Your task to perform on an android device: Open calendar and show me the third week of next month Image 0: 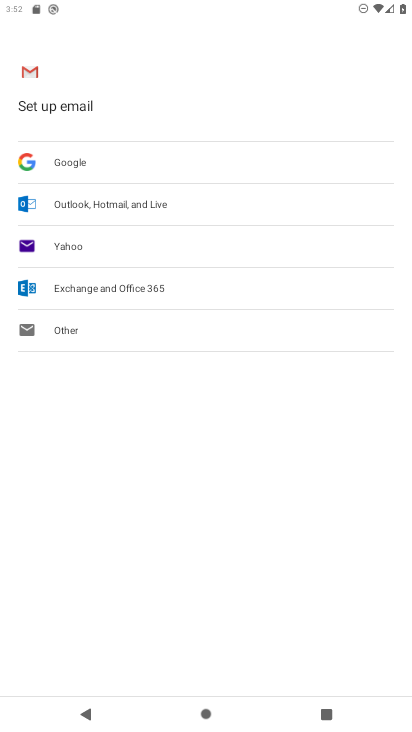
Step 0: press home button
Your task to perform on an android device: Open calendar and show me the third week of next month Image 1: 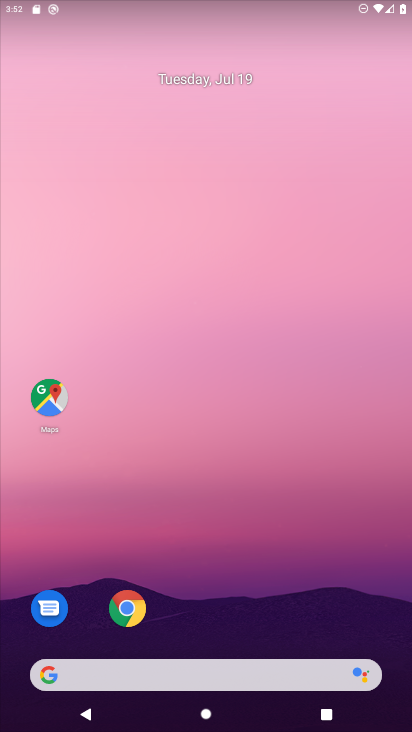
Step 1: drag from (333, 602) to (220, 58)
Your task to perform on an android device: Open calendar and show me the third week of next month Image 2: 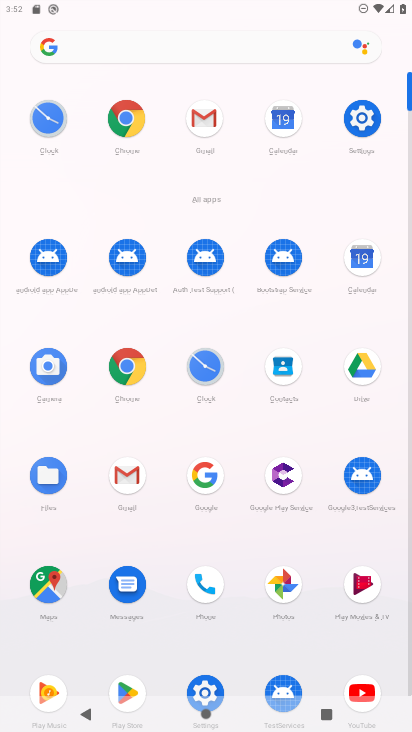
Step 2: click (280, 120)
Your task to perform on an android device: Open calendar and show me the third week of next month Image 3: 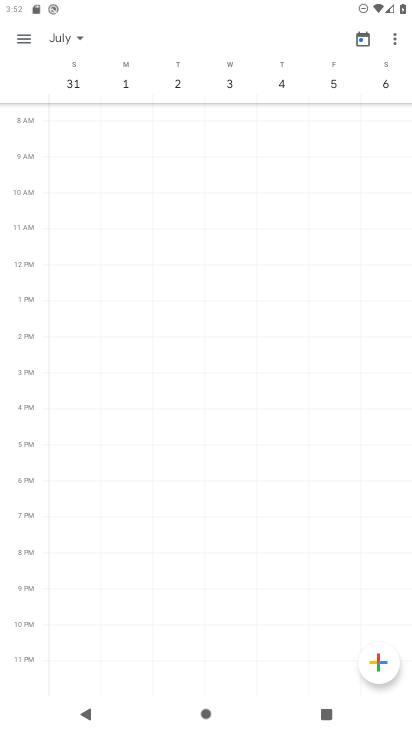
Step 3: click (76, 42)
Your task to perform on an android device: Open calendar and show me the third week of next month Image 4: 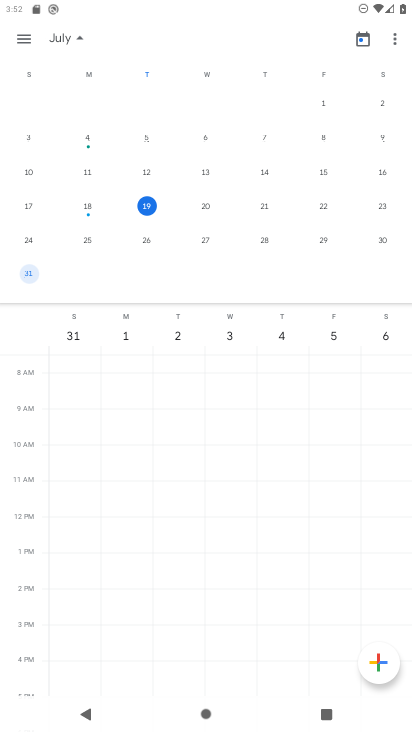
Step 4: drag from (386, 242) to (102, 176)
Your task to perform on an android device: Open calendar and show me the third week of next month Image 5: 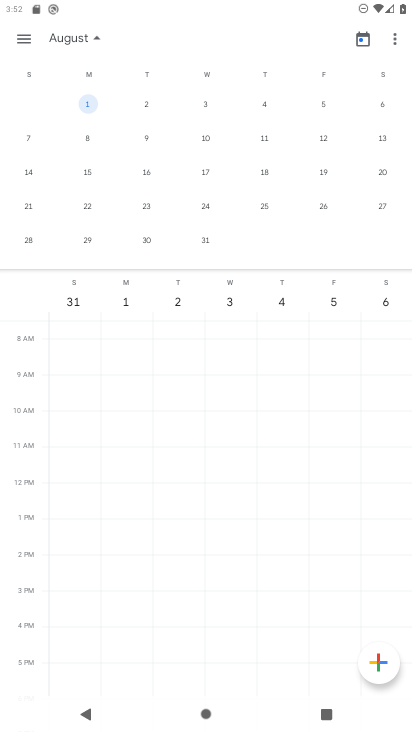
Step 5: click (148, 191)
Your task to perform on an android device: Open calendar and show me the third week of next month Image 6: 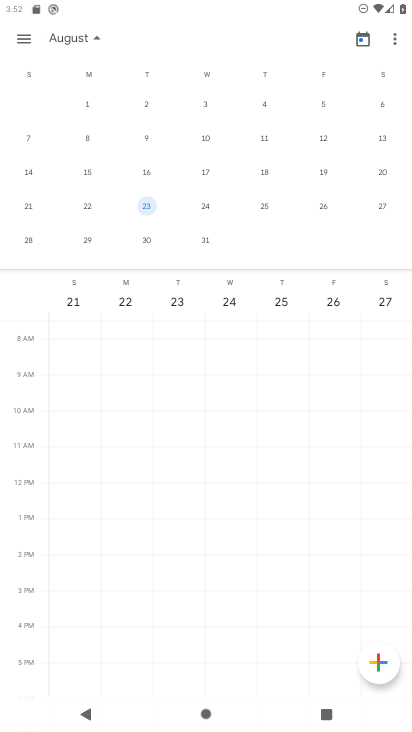
Step 6: click (149, 175)
Your task to perform on an android device: Open calendar and show me the third week of next month Image 7: 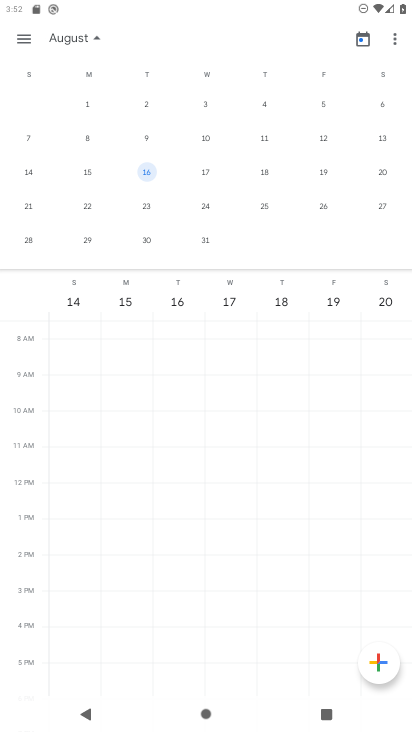
Step 7: task complete